Your task to perform on an android device: turn off location history Image 0: 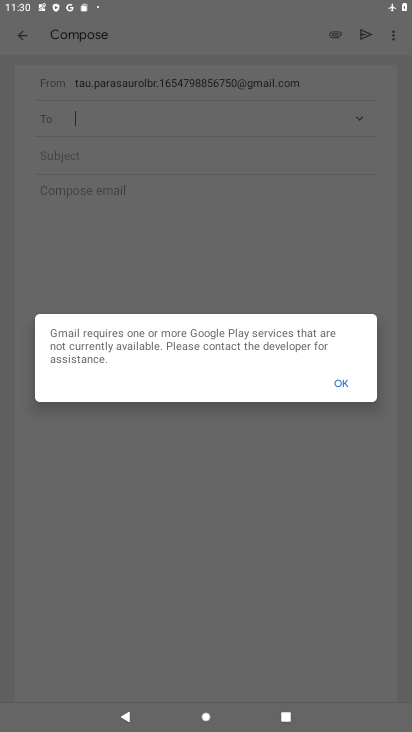
Step 0: press home button
Your task to perform on an android device: turn off location history Image 1: 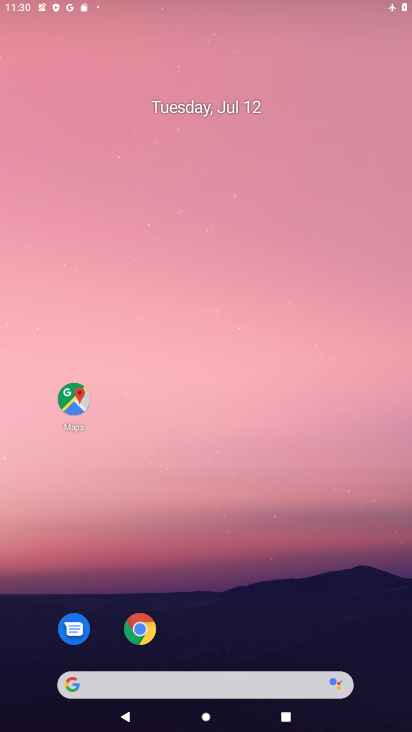
Step 1: drag from (130, 681) to (200, 108)
Your task to perform on an android device: turn off location history Image 2: 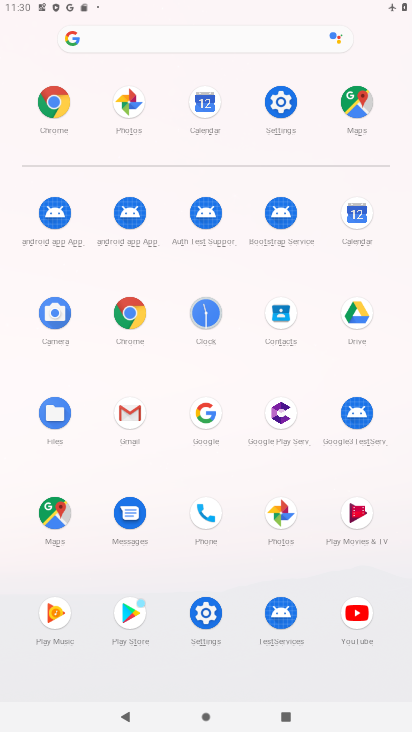
Step 2: click (211, 606)
Your task to perform on an android device: turn off location history Image 3: 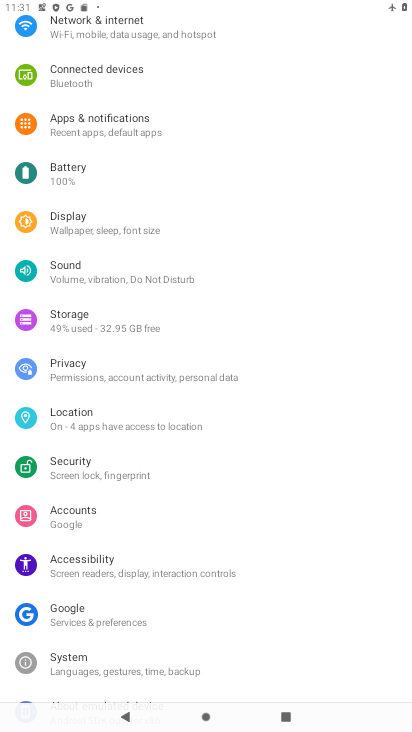
Step 3: drag from (136, 621) to (166, 243)
Your task to perform on an android device: turn off location history Image 4: 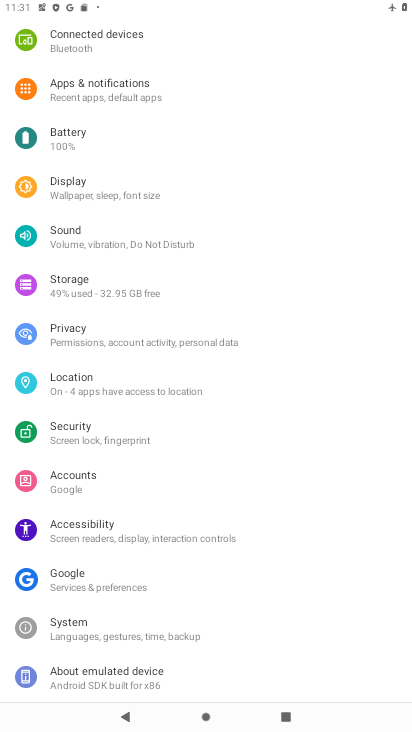
Step 4: click (75, 390)
Your task to perform on an android device: turn off location history Image 5: 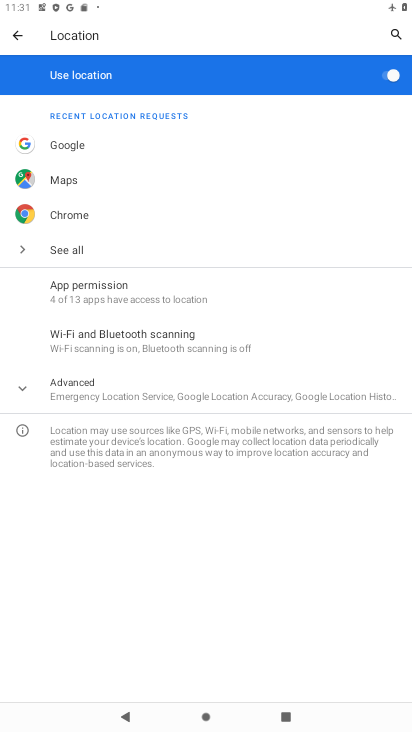
Step 5: click (126, 393)
Your task to perform on an android device: turn off location history Image 6: 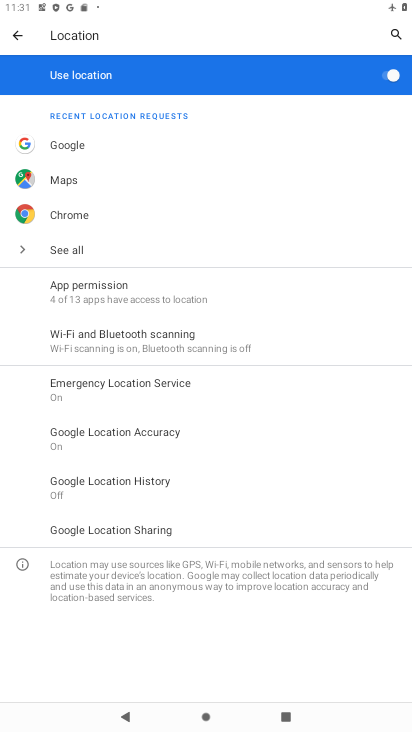
Step 6: click (141, 475)
Your task to perform on an android device: turn off location history Image 7: 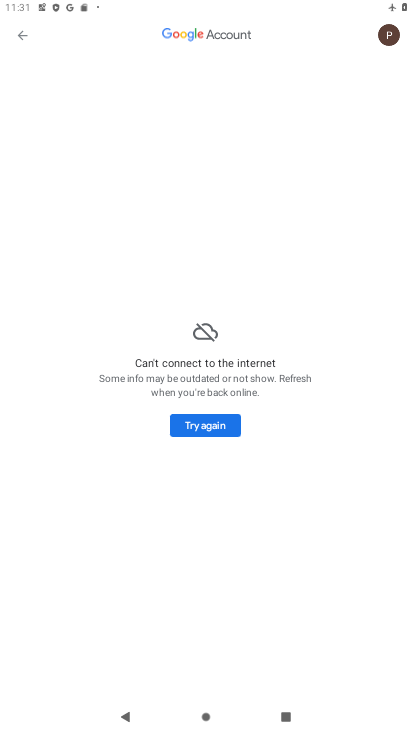
Step 7: task complete